Your task to perform on an android device: Open display settings Image 0: 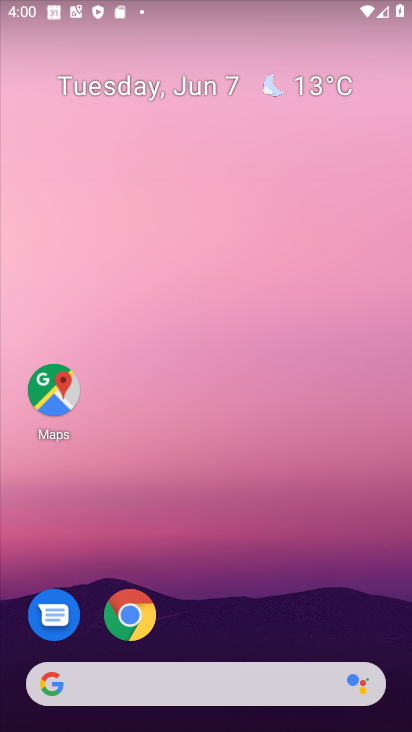
Step 0: drag from (207, 632) to (284, 206)
Your task to perform on an android device: Open display settings Image 1: 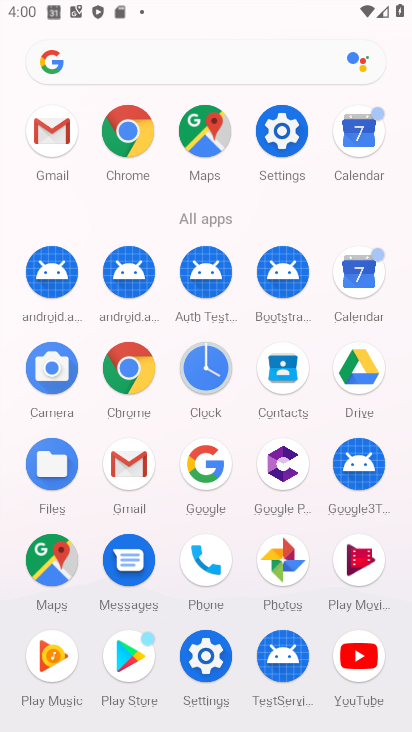
Step 1: click (206, 649)
Your task to perform on an android device: Open display settings Image 2: 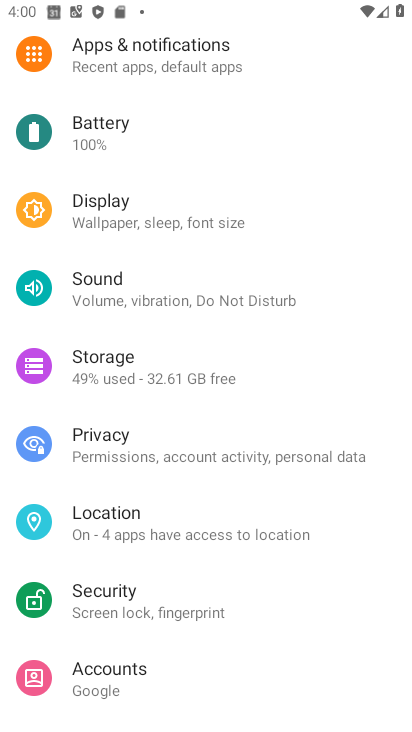
Step 2: click (130, 219)
Your task to perform on an android device: Open display settings Image 3: 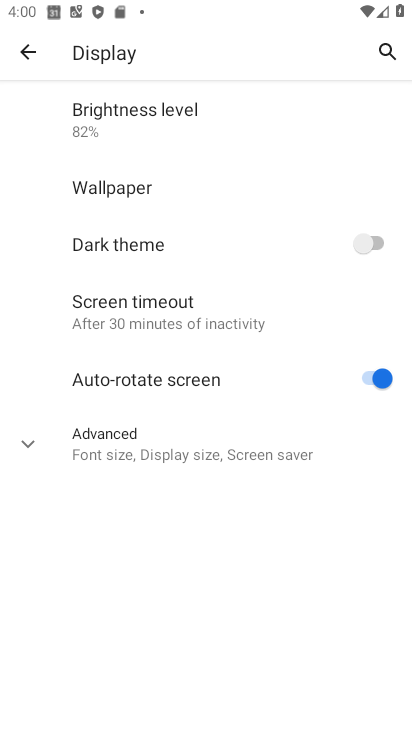
Step 3: task complete